Your task to perform on an android device: What's on my calendar tomorrow? Image 0: 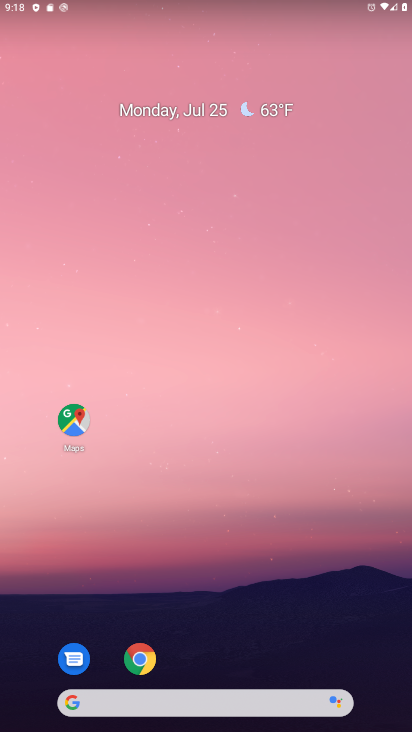
Step 0: drag from (192, 727) to (206, 11)
Your task to perform on an android device: What's on my calendar tomorrow? Image 1: 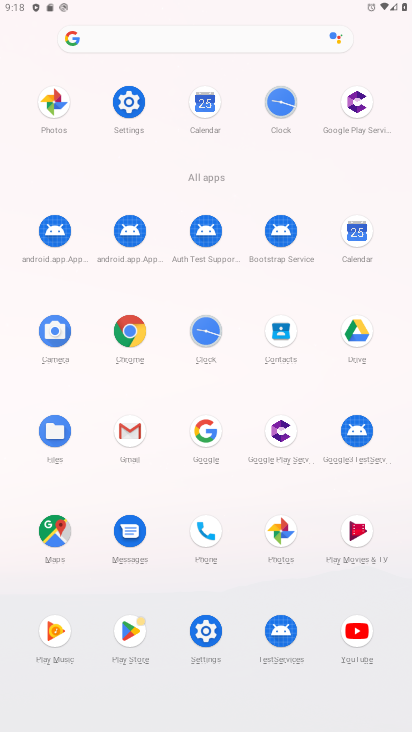
Step 1: click (353, 223)
Your task to perform on an android device: What's on my calendar tomorrow? Image 2: 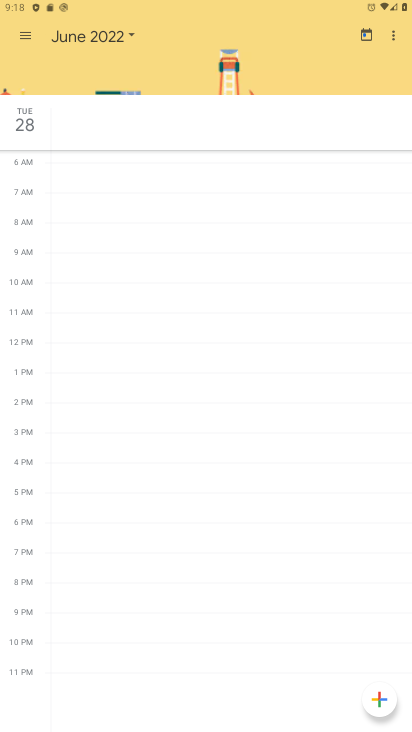
Step 2: task complete